Your task to perform on an android device: toggle notifications settings in the gmail app Image 0: 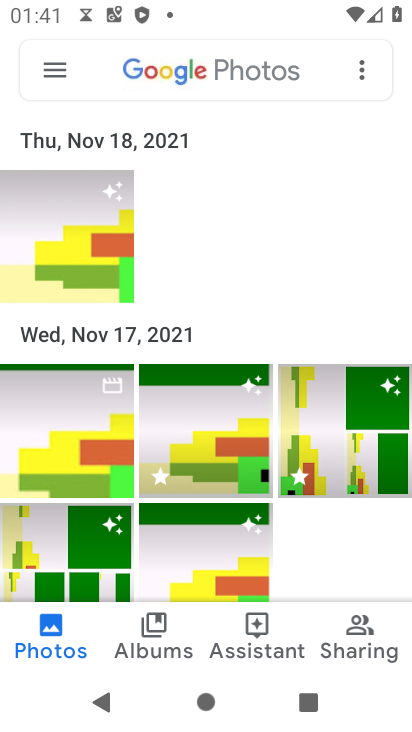
Step 0: press home button
Your task to perform on an android device: toggle notifications settings in the gmail app Image 1: 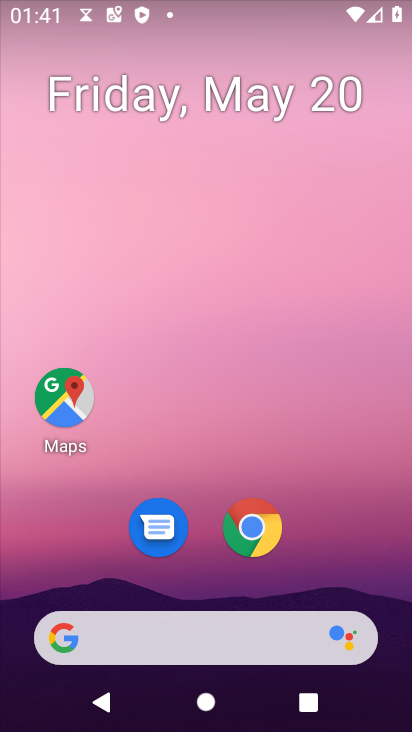
Step 1: drag from (195, 635) to (310, 97)
Your task to perform on an android device: toggle notifications settings in the gmail app Image 2: 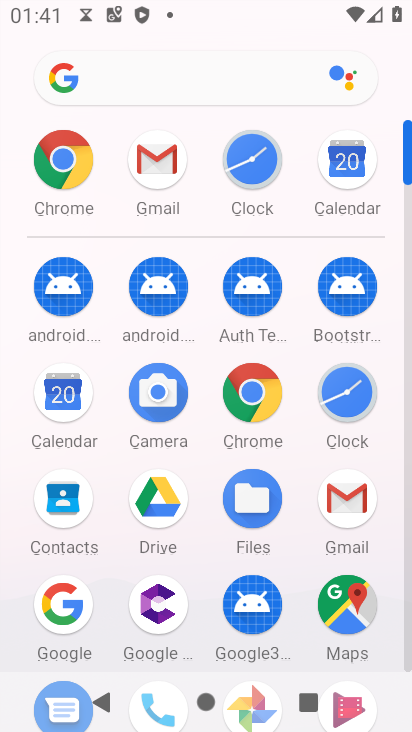
Step 2: click (167, 170)
Your task to perform on an android device: toggle notifications settings in the gmail app Image 3: 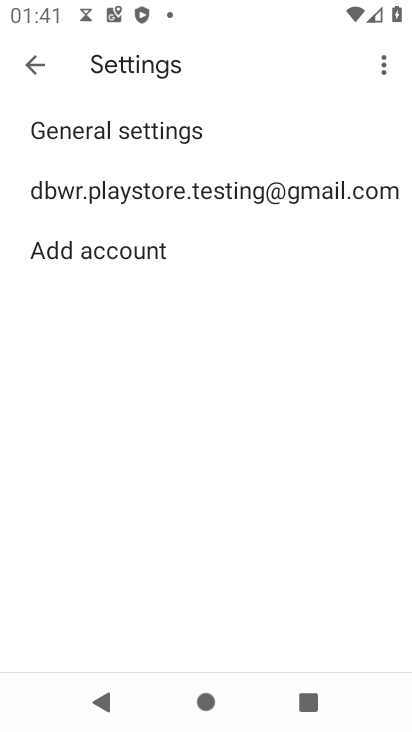
Step 3: click (173, 187)
Your task to perform on an android device: toggle notifications settings in the gmail app Image 4: 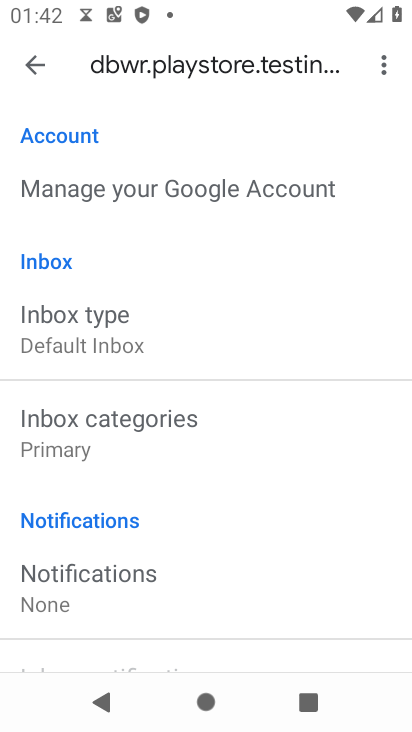
Step 4: click (100, 341)
Your task to perform on an android device: toggle notifications settings in the gmail app Image 5: 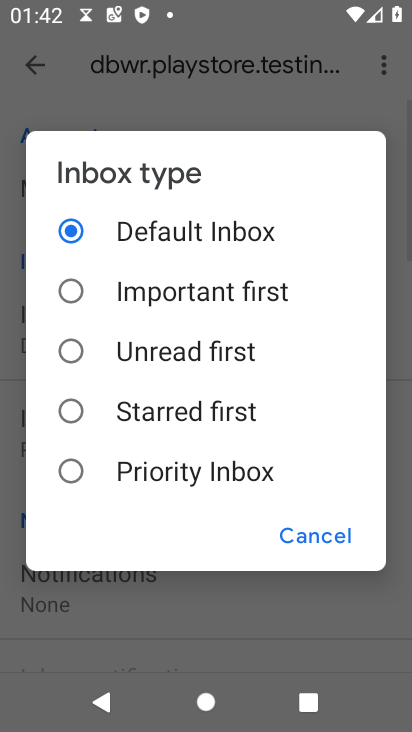
Step 5: click (67, 467)
Your task to perform on an android device: toggle notifications settings in the gmail app Image 6: 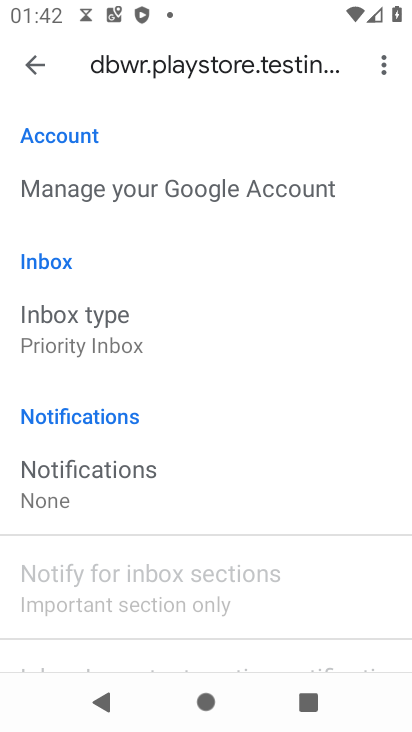
Step 6: task complete